Your task to perform on an android device: delete a single message in the gmail app Image 0: 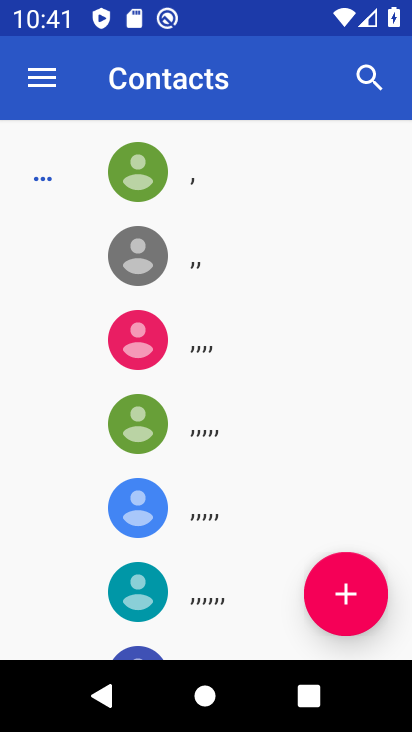
Step 0: press home button
Your task to perform on an android device: delete a single message in the gmail app Image 1: 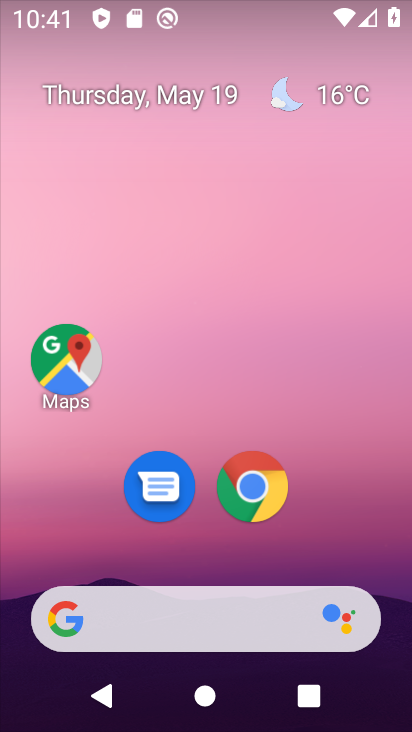
Step 1: drag from (381, 514) to (306, 1)
Your task to perform on an android device: delete a single message in the gmail app Image 2: 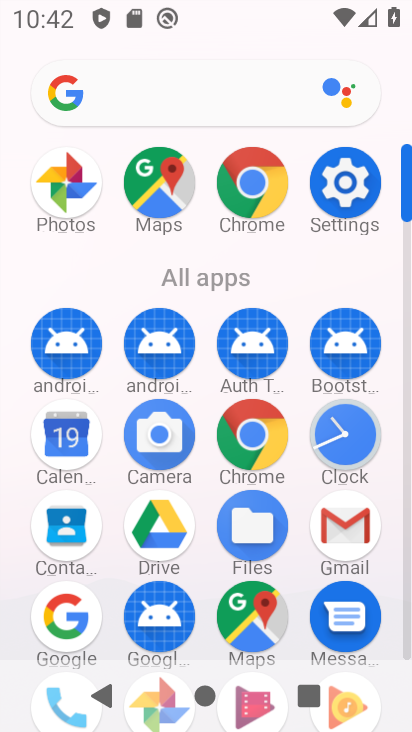
Step 2: click (328, 552)
Your task to perform on an android device: delete a single message in the gmail app Image 3: 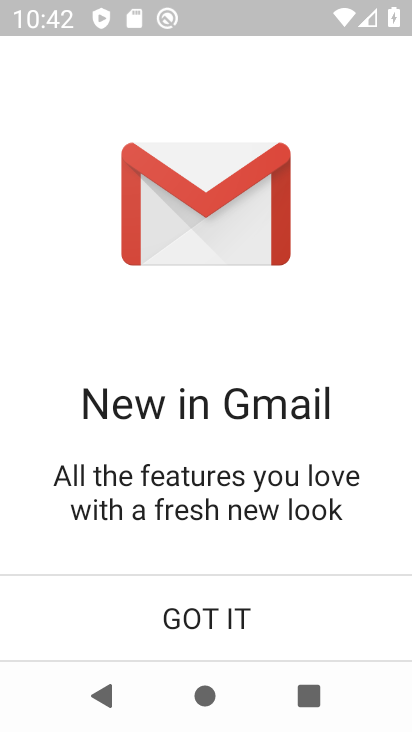
Step 3: click (278, 642)
Your task to perform on an android device: delete a single message in the gmail app Image 4: 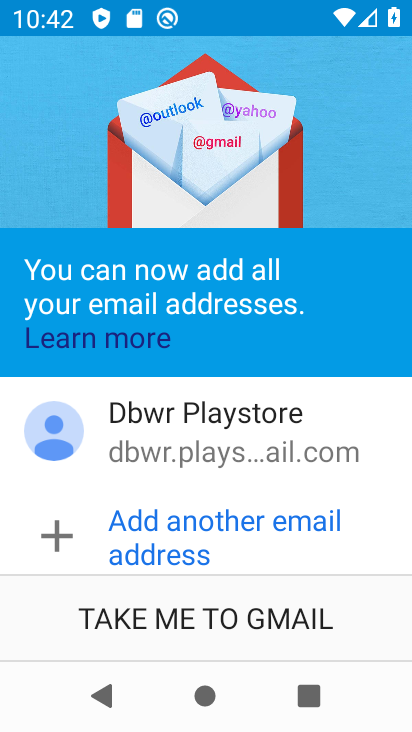
Step 4: click (278, 633)
Your task to perform on an android device: delete a single message in the gmail app Image 5: 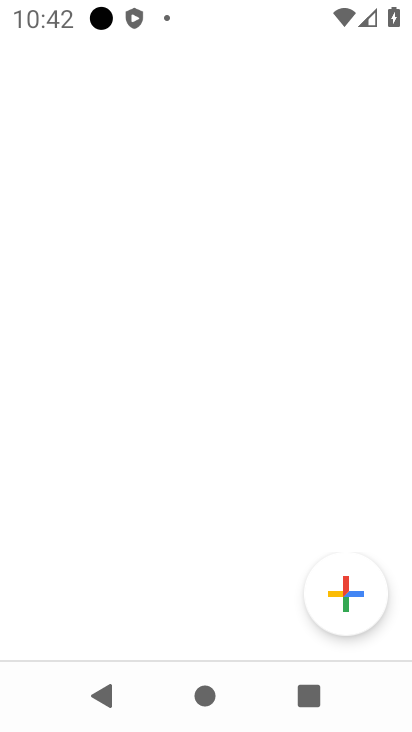
Step 5: click (278, 633)
Your task to perform on an android device: delete a single message in the gmail app Image 6: 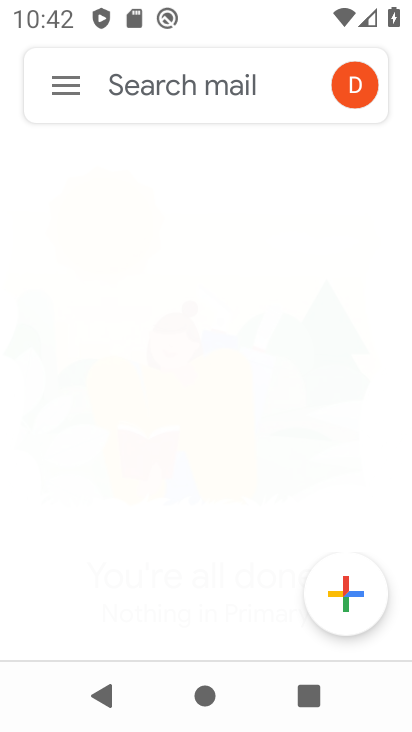
Step 6: click (81, 96)
Your task to perform on an android device: delete a single message in the gmail app Image 7: 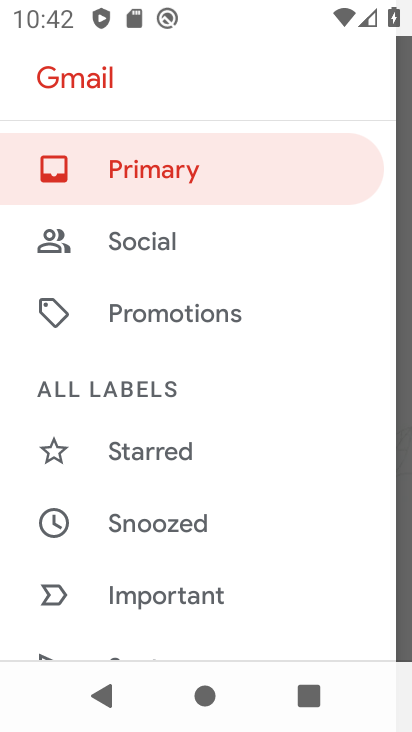
Step 7: drag from (144, 534) to (156, 334)
Your task to perform on an android device: delete a single message in the gmail app Image 8: 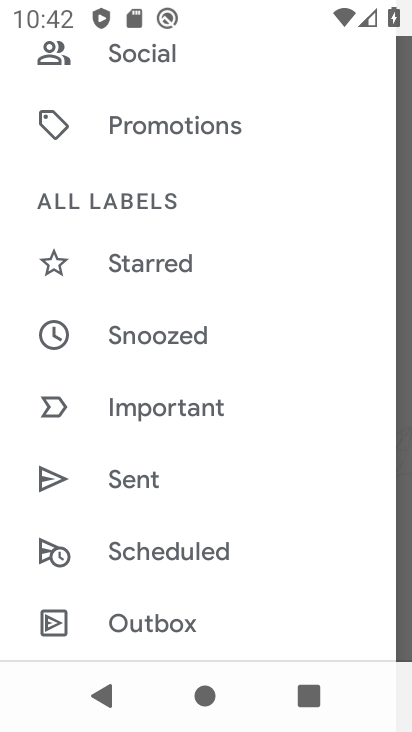
Step 8: drag from (126, 598) to (131, 380)
Your task to perform on an android device: delete a single message in the gmail app Image 9: 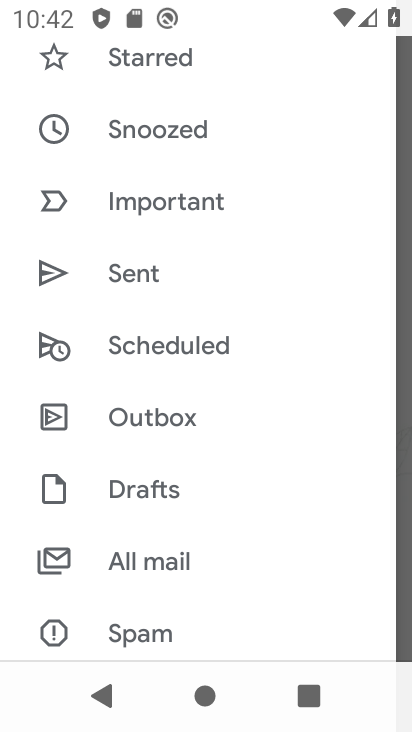
Step 9: click (171, 586)
Your task to perform on an android device: delete a single message in the gmail app Image 10: 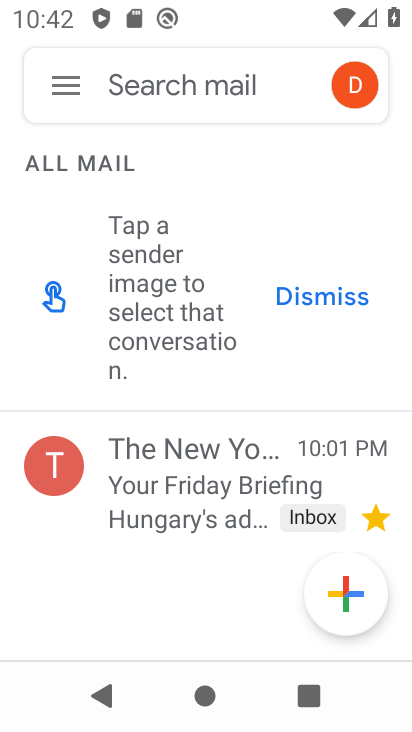
Step 10: click (214, 475)
Your task to perform on an android device: delete a single message in the gmail app Image 11: 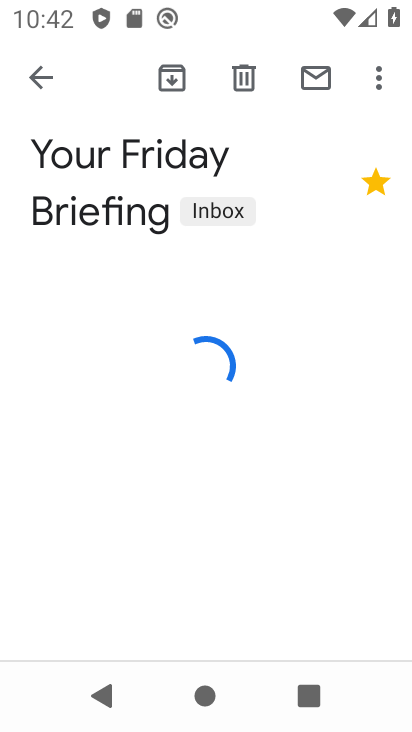
Step 11: click (257, 75)
Your task to perform on an android device: delete a single message in the gmail app Image 12: 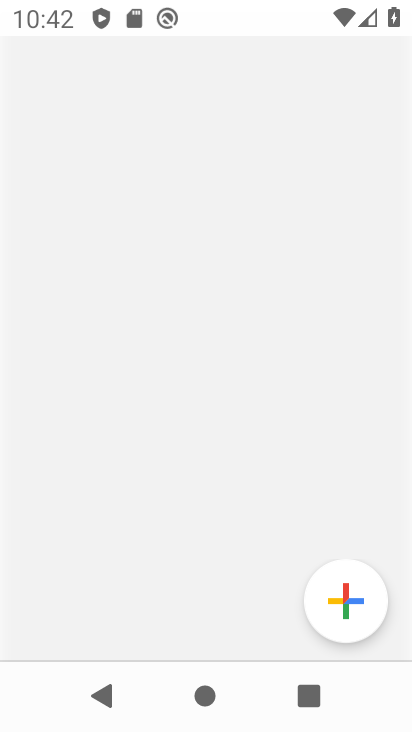
Step 12: task complete